Your task to perform on an android device: make emails show in primary in the gmail app Image 0: 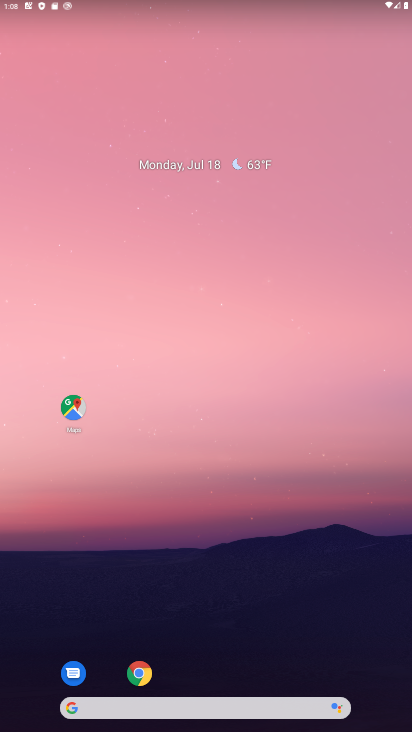
Step 0: drag from (253, 676) to (231, 247)
Your task to perform on an android device: make emails show in primary in the gmail app Image 1: 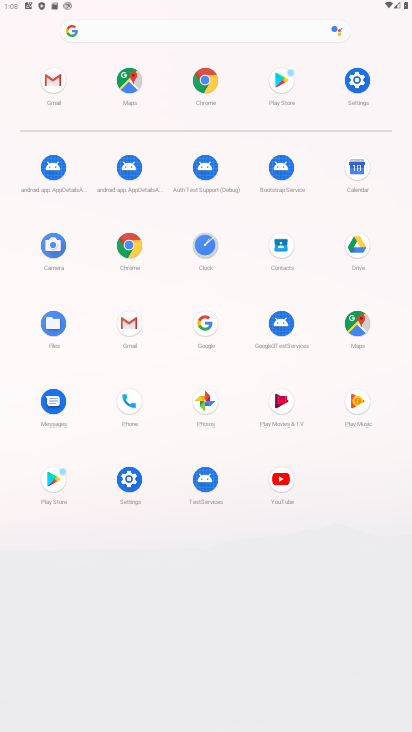
Step 1: click (131, 320)
Your task to perform on an android device: make emails show in primary in the gmail app Image 2: 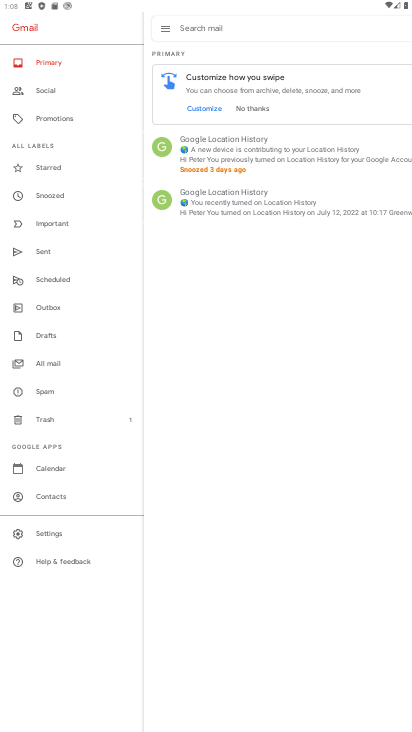
Step 2: click (50, 525)
Your task to perform on an android device: make emails show in primary in the gmail app Image 3: 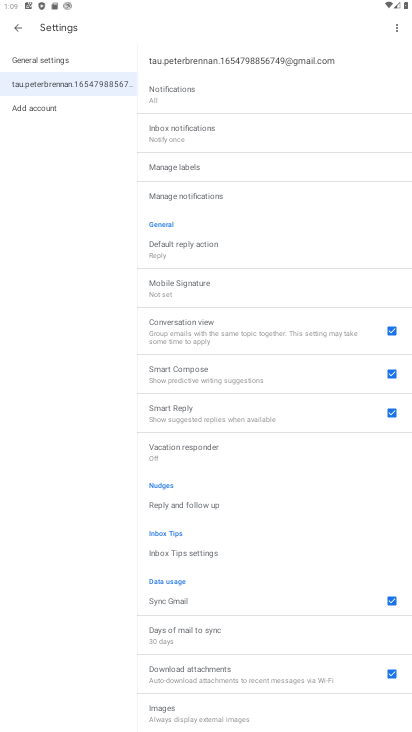
Step 3: click (60, 54)
Your task to perform on an android device: make emails show in primary in the gmail app Image 4: 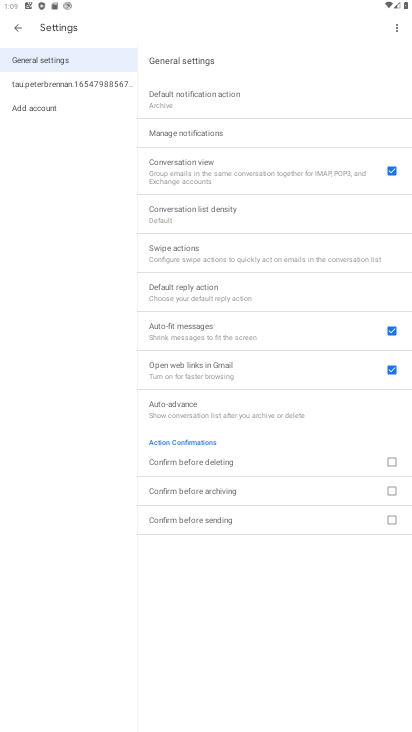
Step 4: click (39, 78)
Your task to perform on an android device: make emails show in primary in the gmail app Image 5: 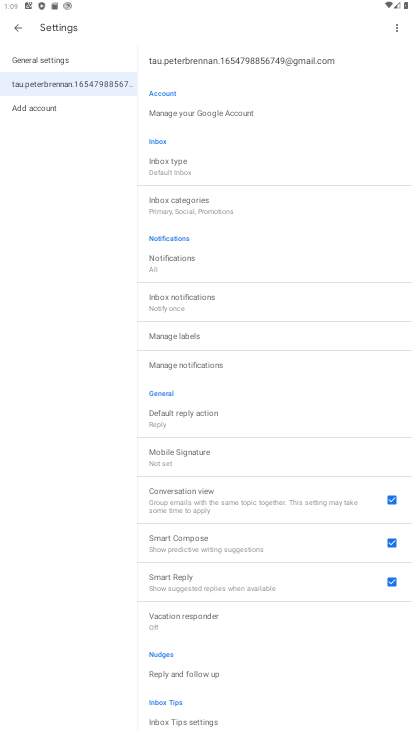
Step 5: task complete